Your task to perform on an android device: Open accessibility settings Image 0: 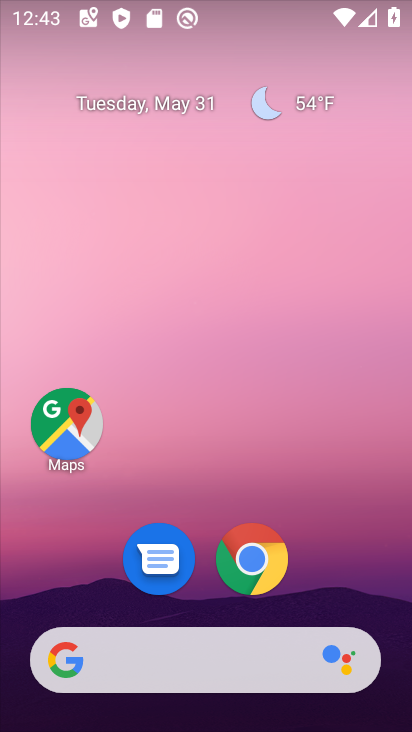
Step 0: drag from (159, 723) to (184, 77)
Your task to perform on an android device: Open accessibility settings Image 1: 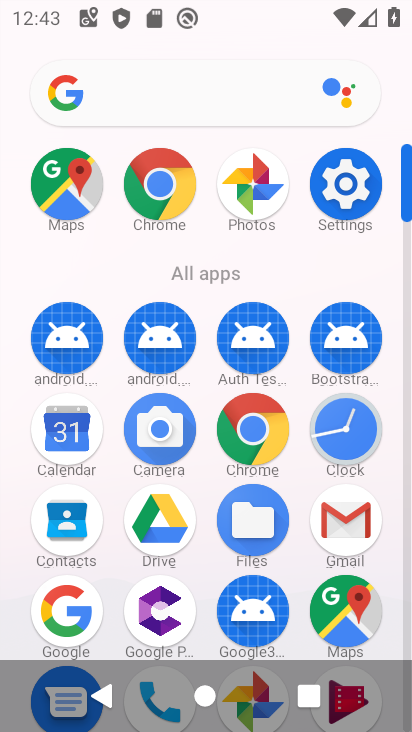
Step 1: click (353, 192)
Your task to perform on an android device: Open accessibility settings Image 2: 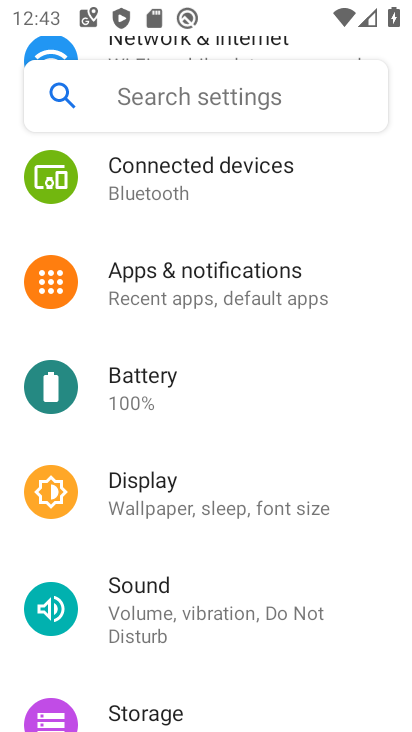
Step 2: drag from (258, 684) to (199, 183)
Your task to perform on an android device: Open accessibility settings Image 3: 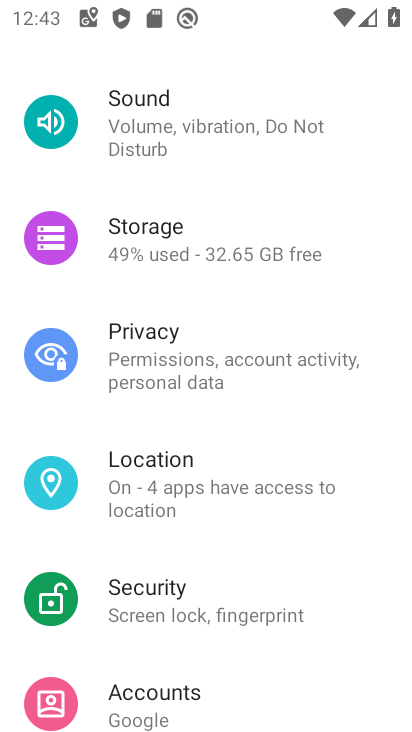
Step 3: drag from (259, 667) to (280, 161)
Your task to perform on an android device: Open accessibility settings Image 4: 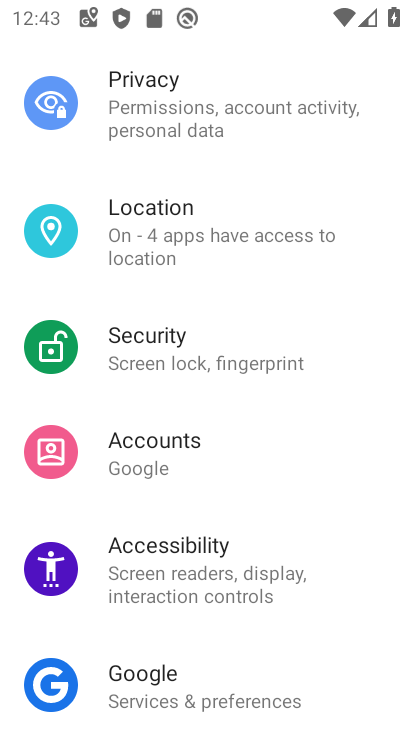
Step 4: click (189, 579)
Your task to perform on an android device: Open accessibility settings Image 5: 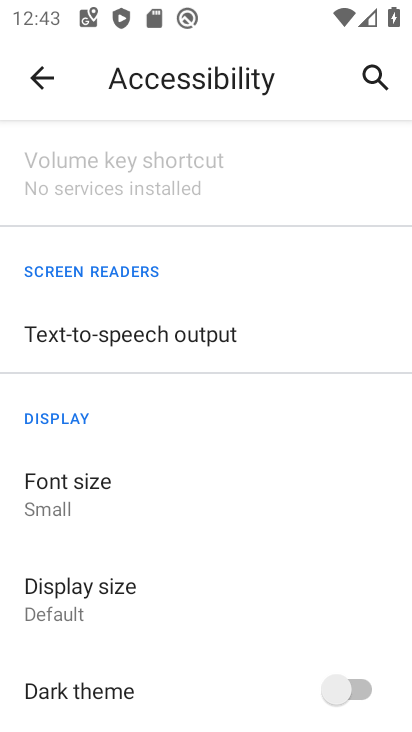
Step 5: task complete